Your task to perform on an android device: toggle pop-ups in chrome Image 0: 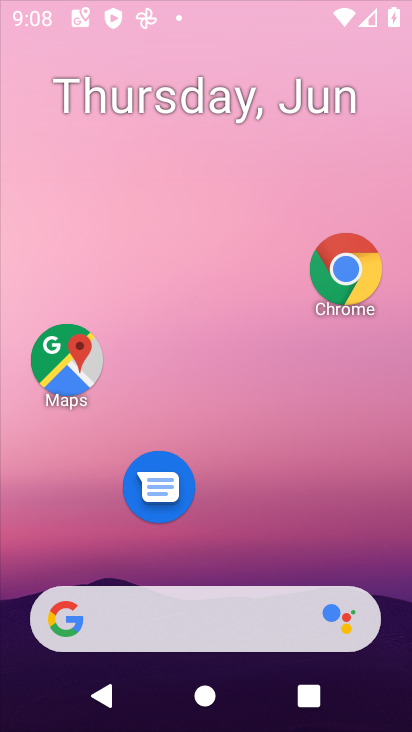
Step 0: click (212, 35)
Your task to perform on an android device: toggle pop-ups in chrome Image 1: 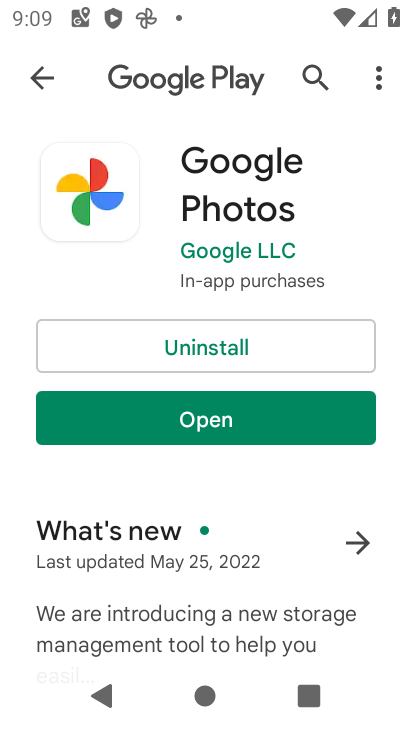
Step 1: press home button
Your task to perform on an android device: toggle pop-ups in chrome Image 2: 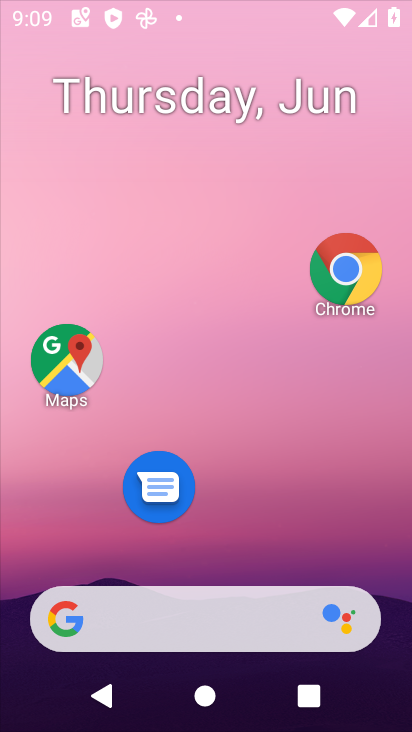
Step 2: drag from (196, 598) to (266, 117)
Your task to perform on an android device: toggle pop-ups in chrome Image 3: 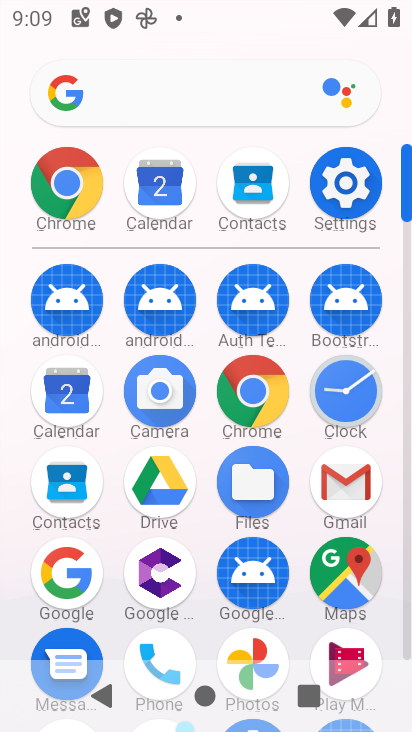
Step 3: drag from (195, 650) to (180, 216)
Your task to perform on an android device: toggle pop-ups in chrome Image 4: 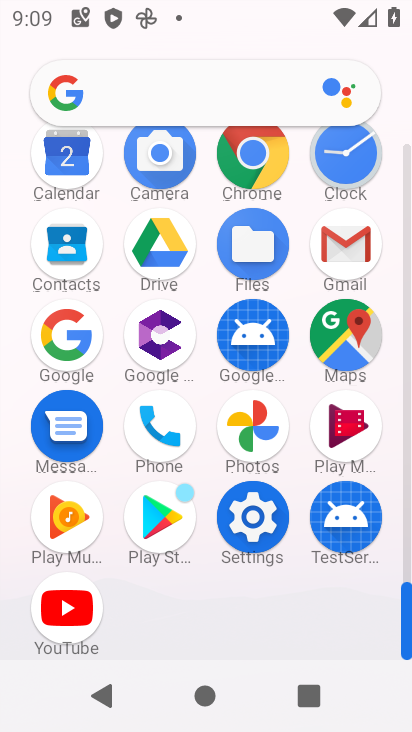
Step 4: click (251, 164)
Your task to perform on an android device: toggle pop-ups in chrome Image 5: 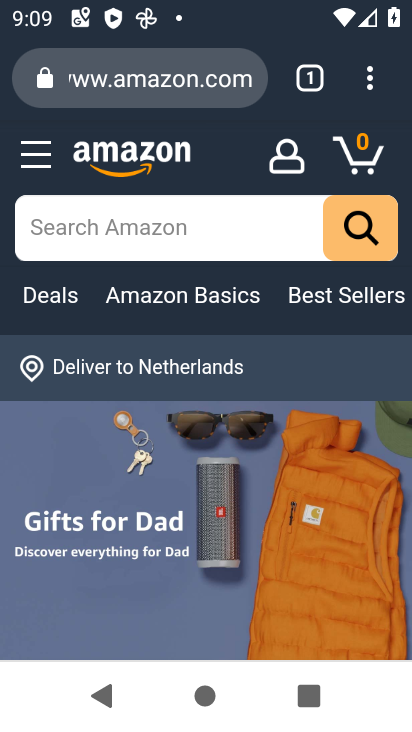
Step 5: drag from (188, 571) to (208, 113)
Your task to perform on an android device: toggle pop-ups in chrome Image 6: 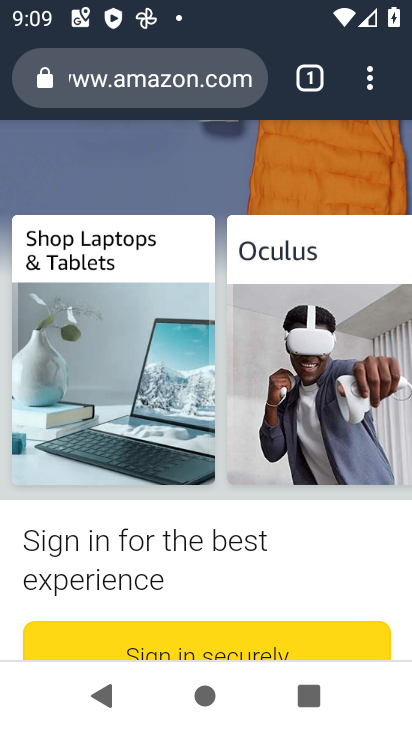
Step 6: drag from (219, 533) to (232, 219)
Your task to perform on an android device: toggle pop-ups in chrome Image 7: 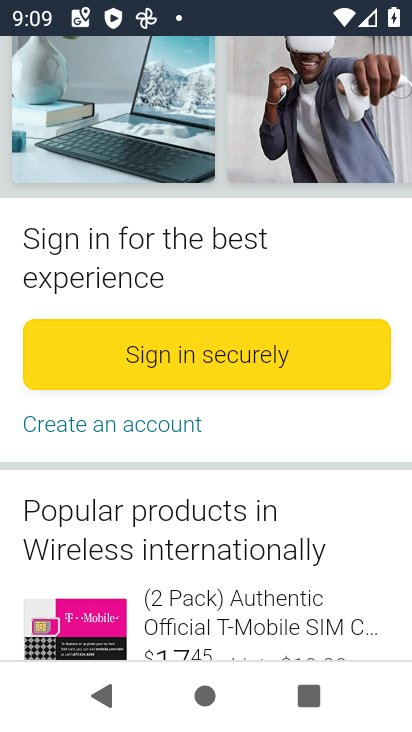
Step 7: drag from (164, 593) to (262, 201)
Your task to perform on an android device: toggle pop-ups in chrome Image 8: 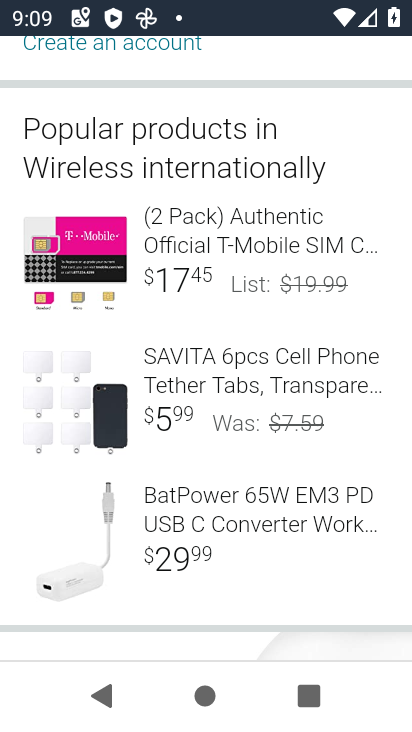
Step 8: drag from (276, 582) to (317, 439)
Your task to perform on an android device: toggle pop-ups in chrome Image 9: 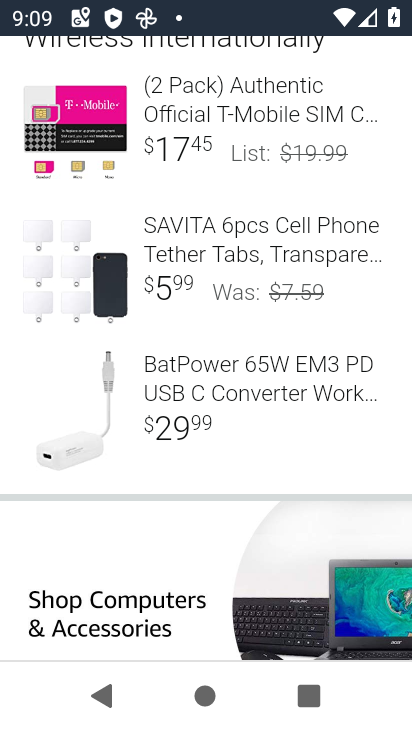
Step 9: drag from (193, 507) to (238, 275)
Your task to perform on an android device: toggle pop-ups in chrome Image 10: 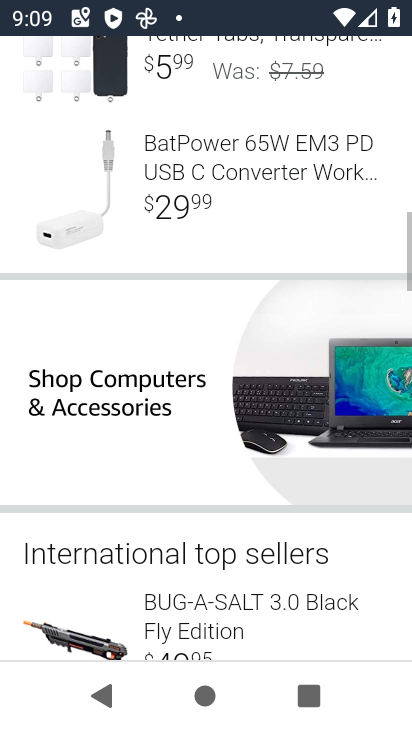
Step 10: drag from (223, 190) to (387, 731)
Your task to perform on an android device: toggle pop-ups in chrome Image 11: 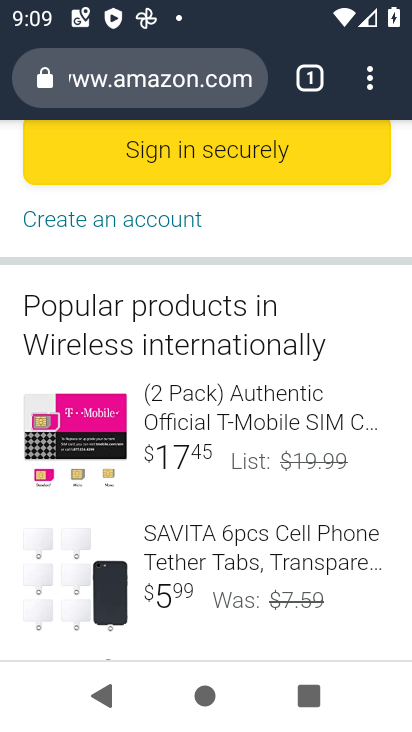
Step 11: drag from (257, 350) to (385, 721)
Your task to perform on an android device: toggle pop-ups in chrome Image 12: 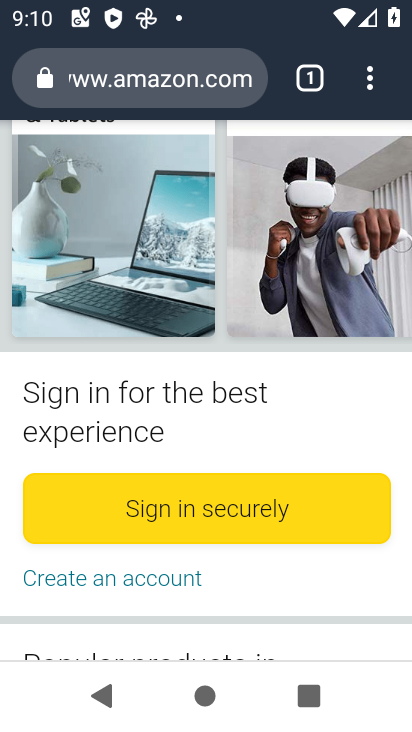
Step 12: drag from (219, 166) to (223, 653)
Your task to perform on an android device: toggle pop-ups in chrome Image 13: 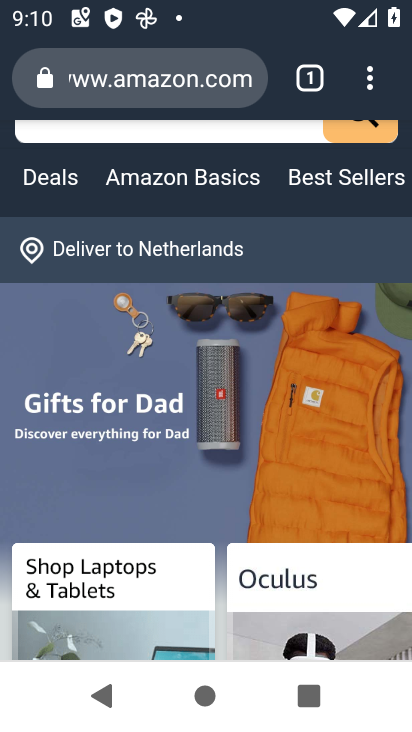
Step 13: drag from (373, 86) to (187, 552)
Your task to perform on an android device: toggle pop-ups in chrome Image 14: 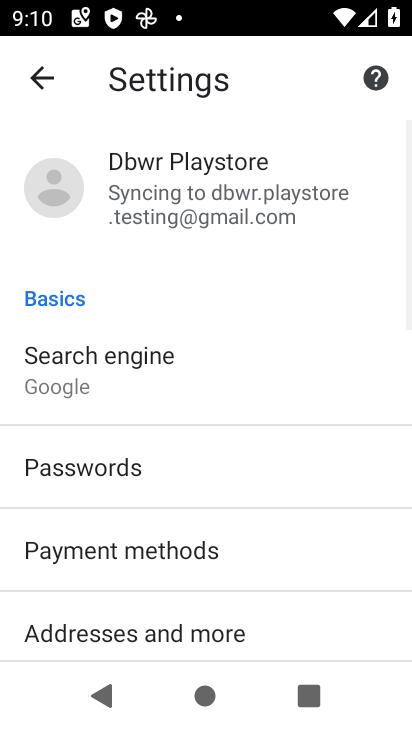
Step 14: drag from (177, 538) to (250, 140)
Your task to perform on an android device: toggle pop-ups in chrome Image 15: 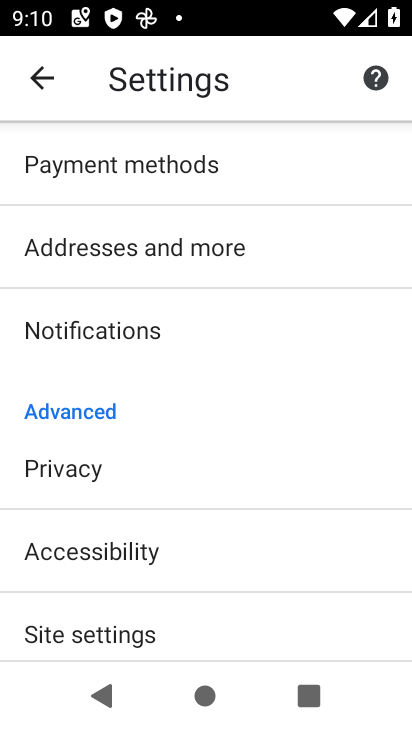
Step 15: drag from (186, 571) to (285, 132)
Your task to perform on an android device: toggle pop-ups in chrome Image 16: 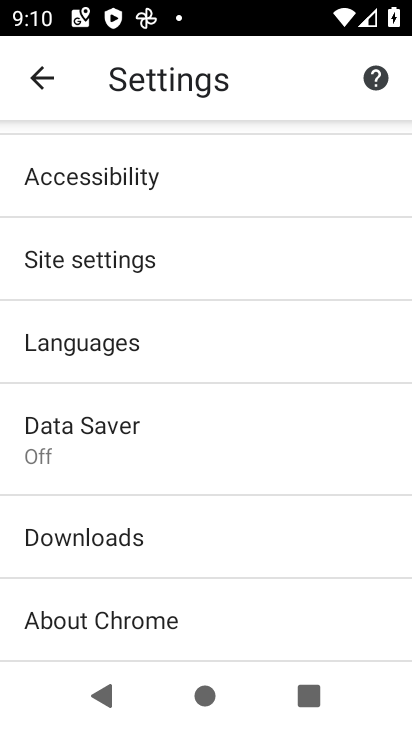
Step 16: click (185, 247)
Your task to perform on an android device: toggle pop-ups in chrome Image 17: 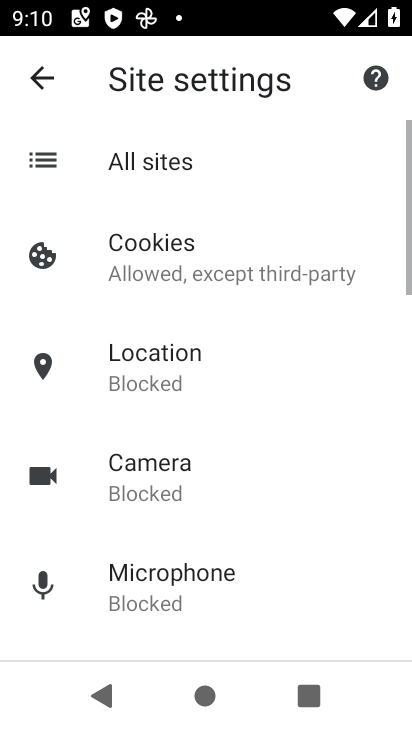
Step 17: drag from (208, 571) to (283, 304)
Your task to perform on an android device: toggle pop-ups in chrome Image 18: 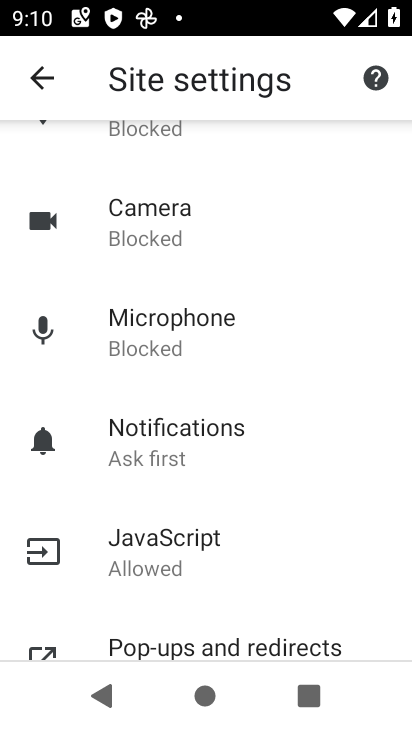
Step 18: click (177, 640)
Your task to perform on an android device: toggle pop-ups in chrome Image 19: 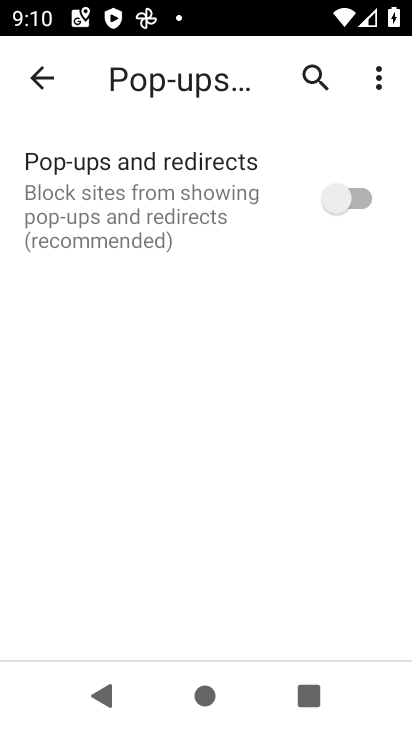
Step 19: click (341, 199)
Your task to perform on an android device: toggle pop-ups in chrome Image 20: 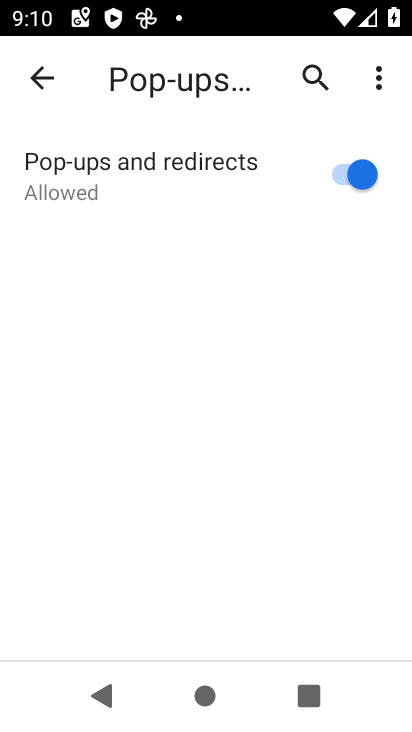
Step 20: task complete